Your task to perform on an android device: see sites visited before in the chrome app Image 0: 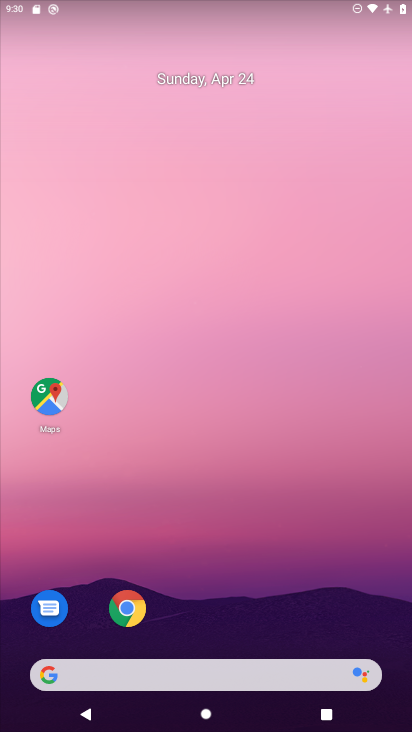
Step 0: click (134, 602)
Your task to perform on an android device: see sites visited before in the chrome app Image 1: 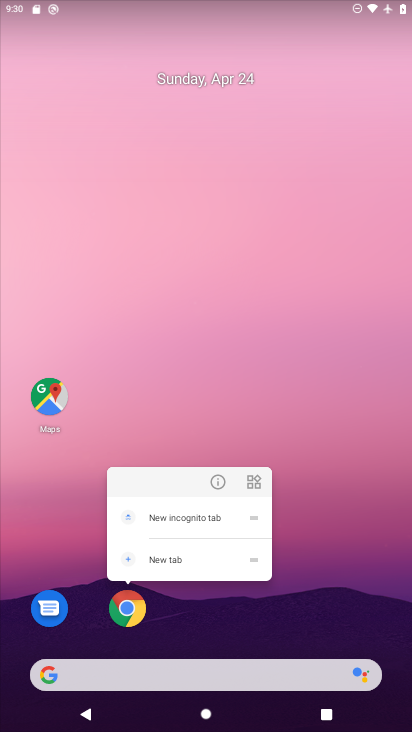
Step 1: click (125, 616)
Your task to perform on an android device: see sites visited before in the chrome app Image 2: 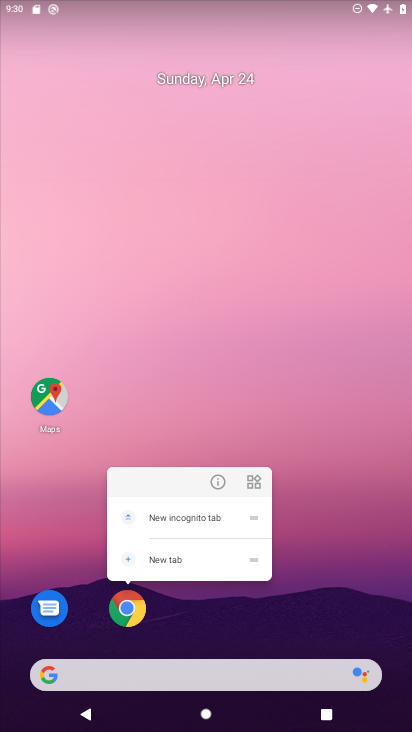
Step 2: click (142, 608)
Your task to perform on an android device: see sites visited before in the chrome app Image 3: 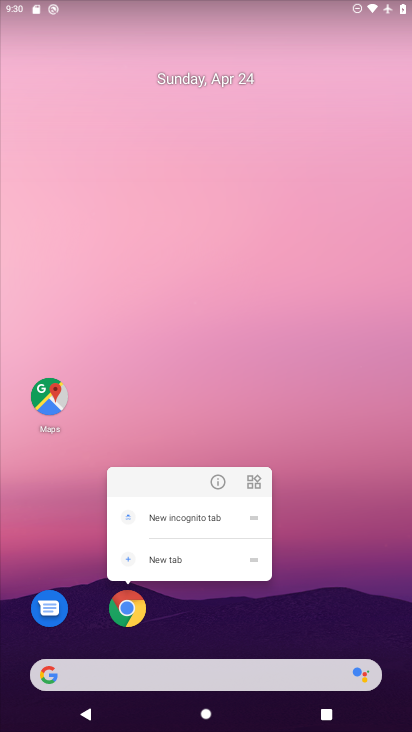
Step 3: click (124, 601)
Your task to perform on an android device: see sites visited before in the chrome app Image 4: 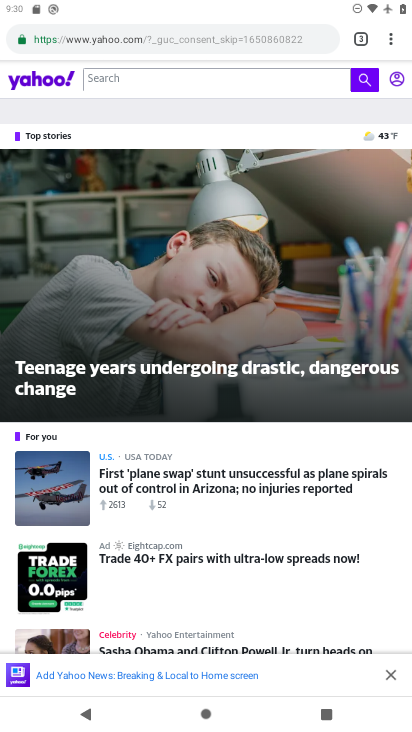
Step 4: click (386, 37)
Your task to perform on an android device: see sites visited before in the chrome app Image 5: 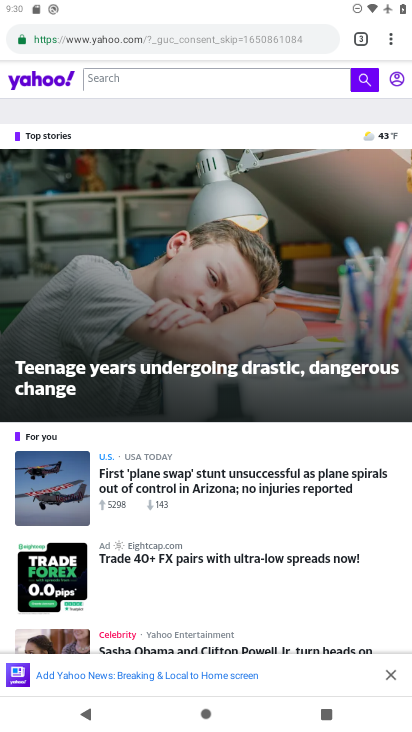
Step 5: task complete